Your task to perform on an android device: Open the stopwatch Image 0: 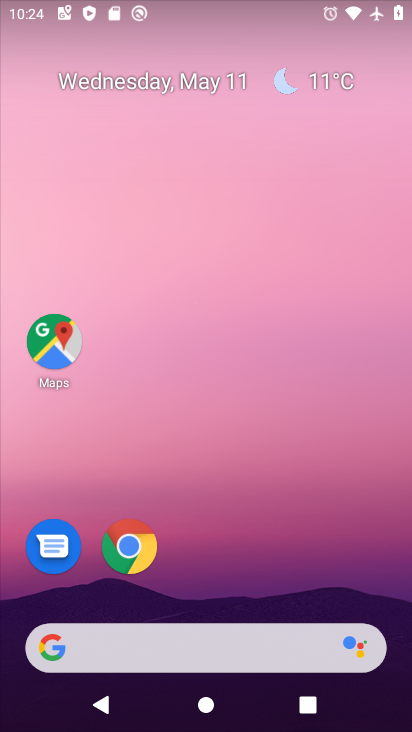
Step 0: drag from (401, 629) to (270, 68)
Your task to perform on an android device: Open the stopwatch Image 1: 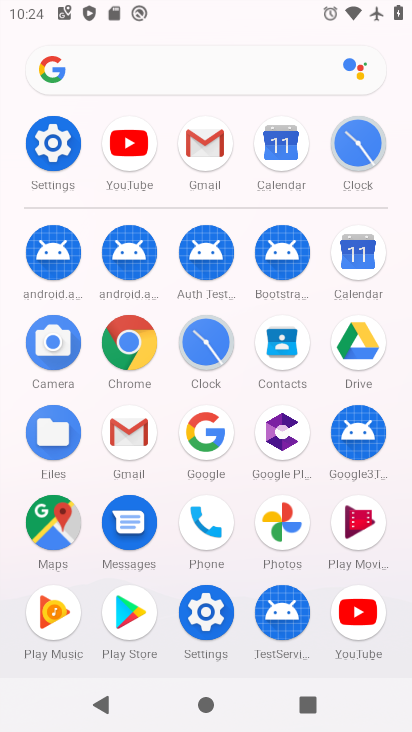
Step 1: click (203, 343)
Your task to perform on an android device: Open the stopwatch Image 2: 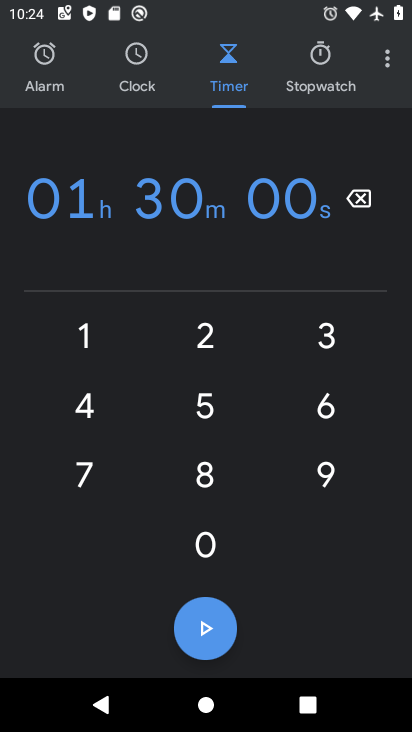
Step 2: click (324, 56)
Your task to perform on an android device: Open the stopwatch Image 3: 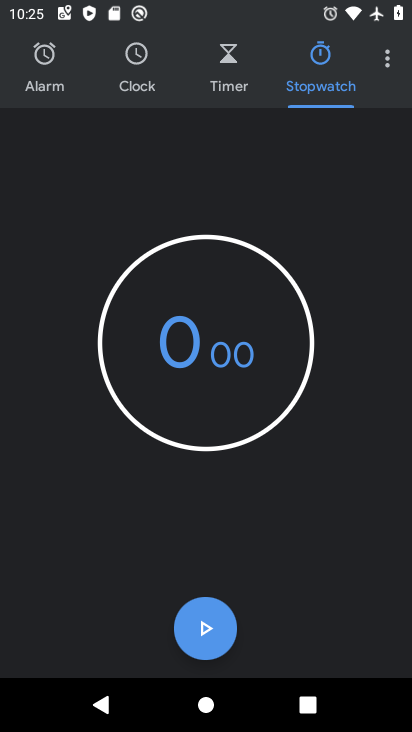
Step 3: task complete